Your task to perform on an android device: turn smart compose on in the gmail app Image 0: 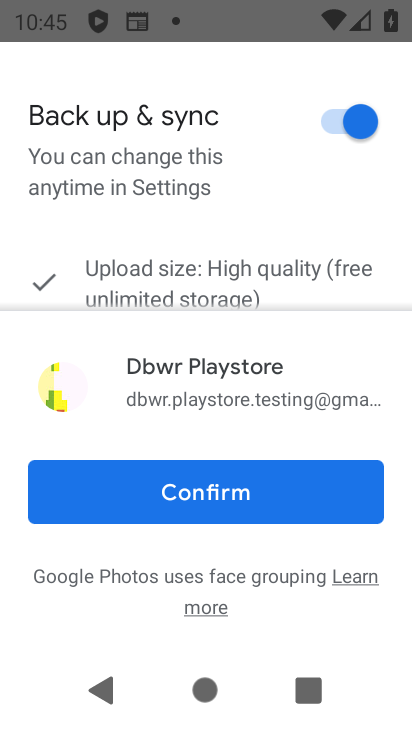
Step 0: press back button
Your task to perform on an android device: turn smart compose on in the gmail app Image 1: 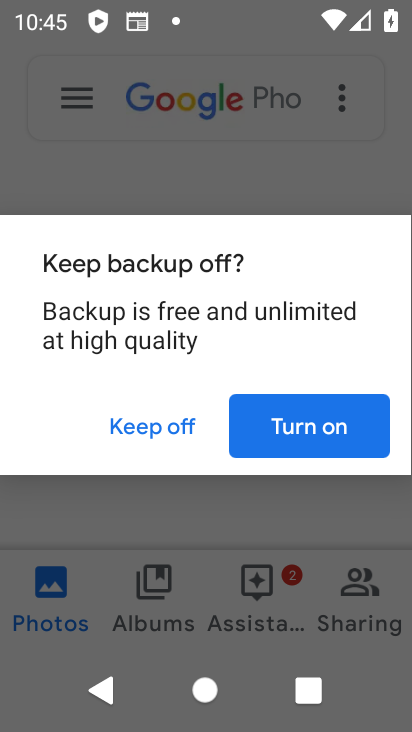
Step 1: press home button
Your task to perform on an android device: turn smart compose on in the gmail app Image 2: 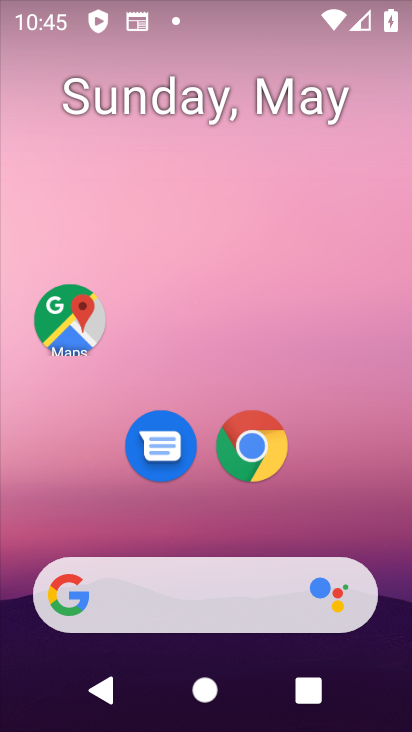
Step 2: drag from (94, 561) to (166, 107)
Your task to perform on an android device: turn smart compose on in the gmail app Image 3: 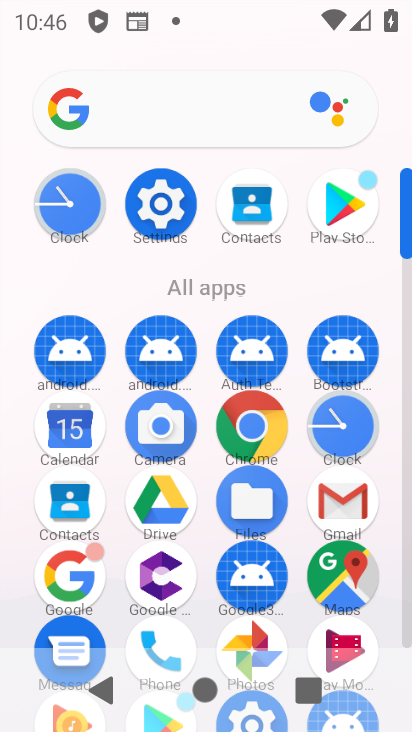
Step 3: drag from (143, 649) to (205, 417)
Your task to perform on an android device: turn smart compose on in the gmail app Image 4: 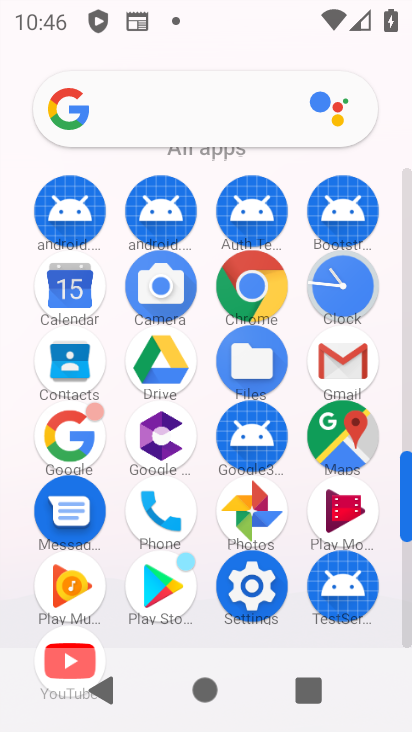
Step 4: click (332, 372)
Your task to perform on an android device: turn smart compose on in the gmail app Image 5: 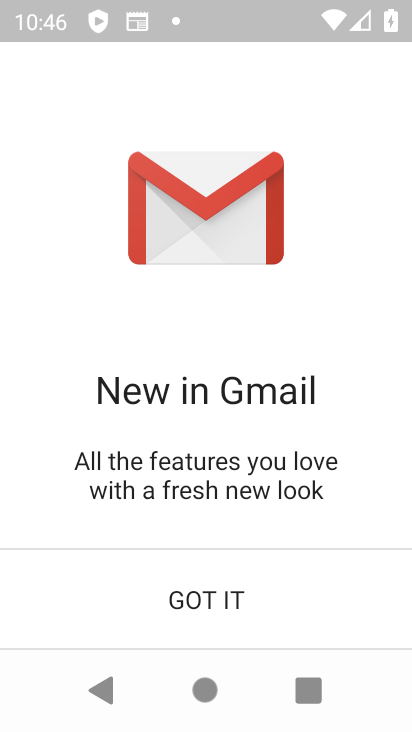
Step 5: click (273, 615)
Your task to perform on an android device: turn smart compose on in the gmail app Image 6: 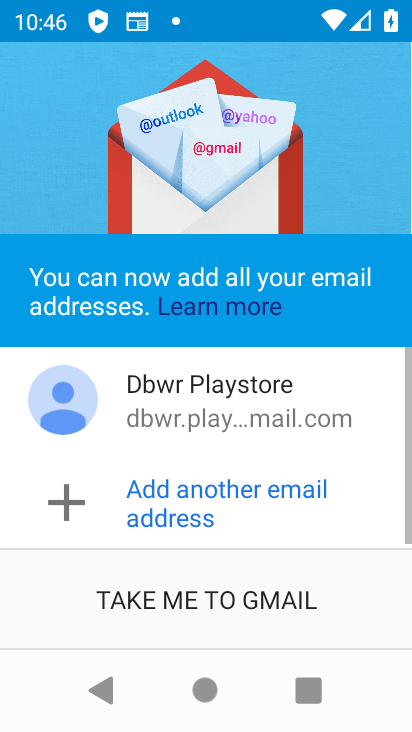
Step 6: click (273, 615)
Your task to perform on an android device: turn smart compose on in the gmail app Image 7: 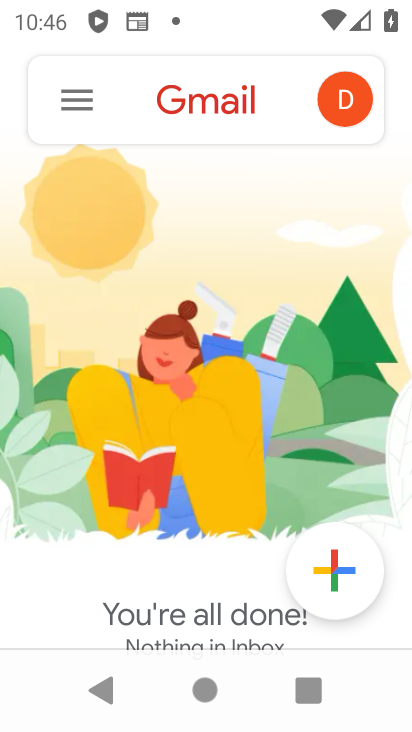
Step 7: click (66, 109)
Your task to perform on an android device: turn smart compose on in the gmail app Image 8: 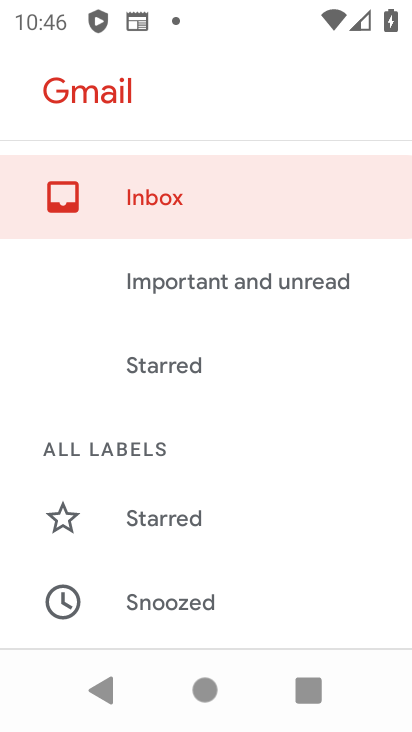
Step 8: drag from (177, 620) to (266, 187)
Your task to perform on an android device: turn smart compose on in the gmail app Image 9: 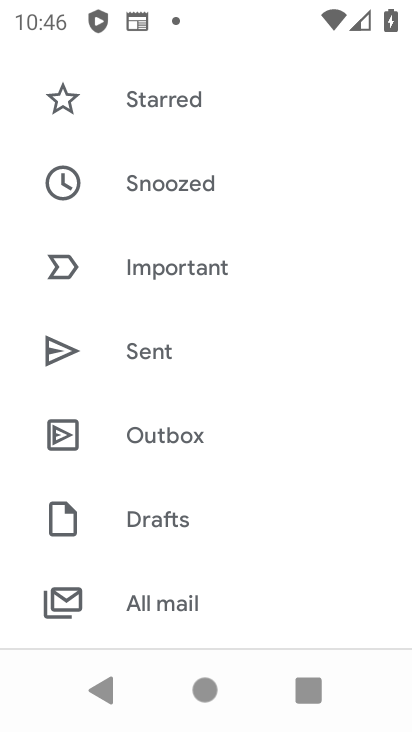
Step 9: drag from (244, 481) to (314, 202)
Your task to perform on an android device: turn smart compose on in the gmail app Image 10: 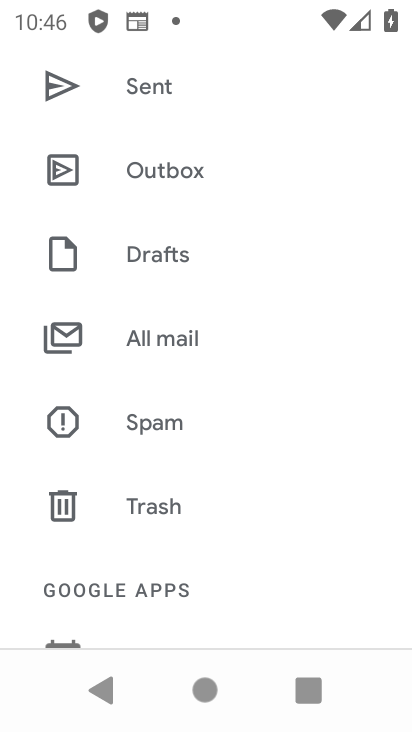
Step 10: drag from (257, 559) to (318, 213)
Your task to perform on an android device: turn smart compose on in the gmail app Image 11: 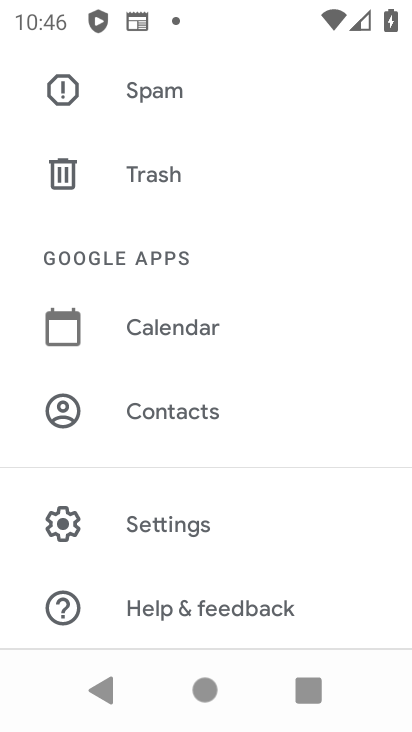
Step 11: click (199, 533)
Your task to perform on an android device: turn smart compose on in the gmail app Image 12: 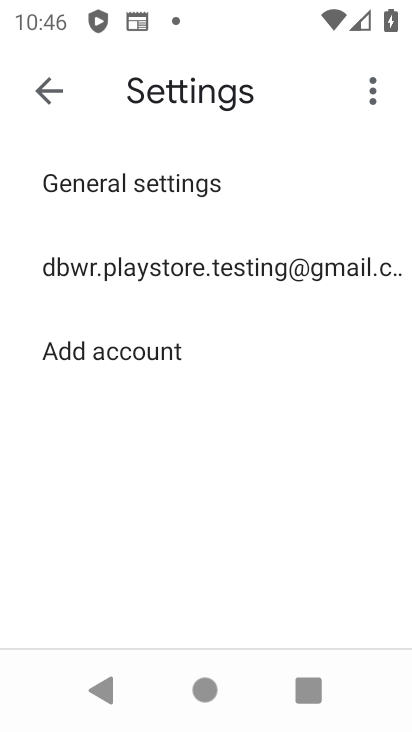
Step 12: click (271, 284)
Your task to perform on an android device: turn smart compose on in the gmail app Image 13: 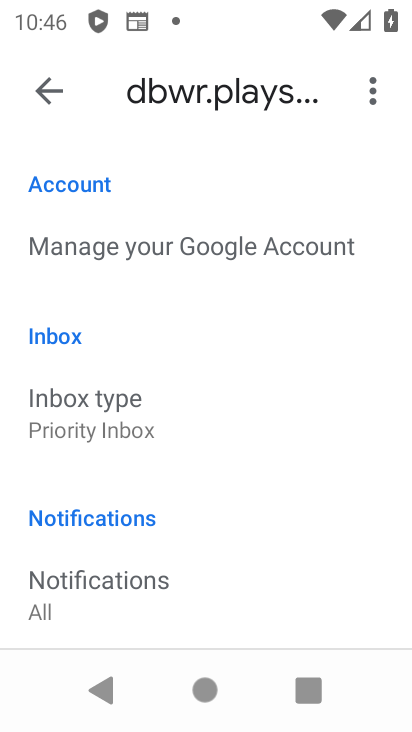
Step 13: task complete